Your task to perform on an android device: Open Yahoo.com Image 0: 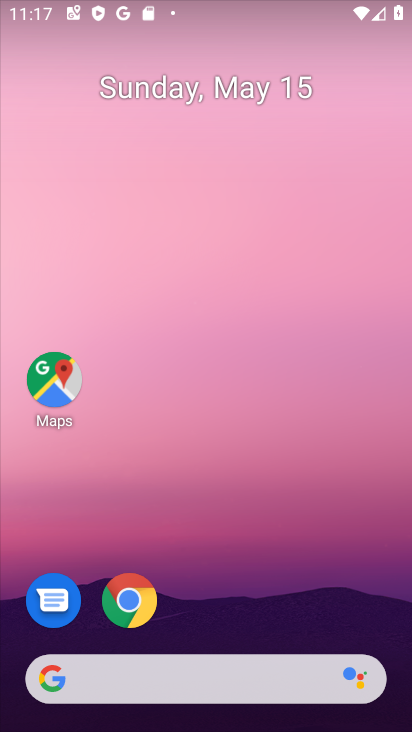
Step 0: click (126, 625)
Your task to perform on an android device: Open Yahoo.com Image 1: 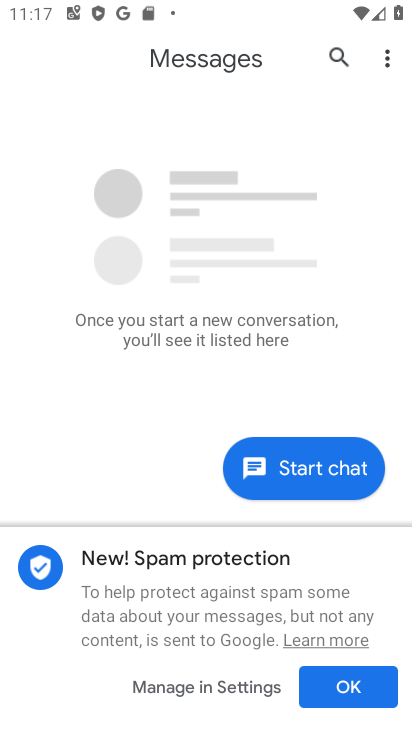
Step 1: press home button
Your task to perform on an android device: Open Yahoo.com Image 2: 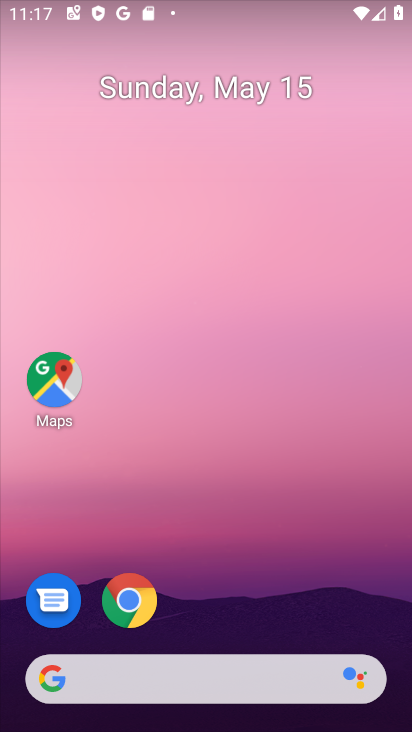
Step 2: click (121, 618)
Your task to perform on an android device: Open Yahoo.com Image 3: 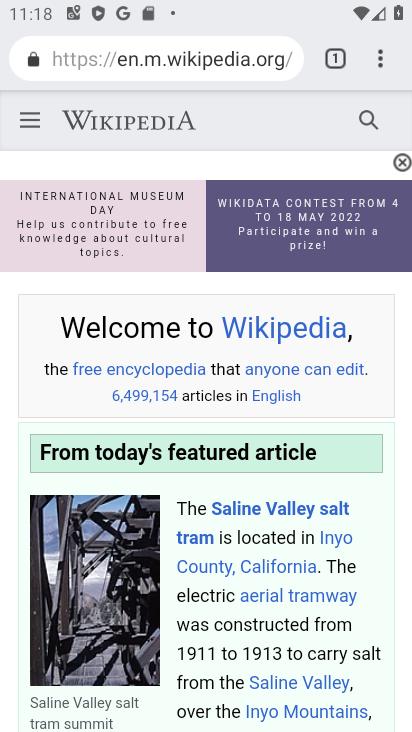
Step 3: click (185, 60)
Your task to perform on an android device: Open Yahoo.com Image 4: 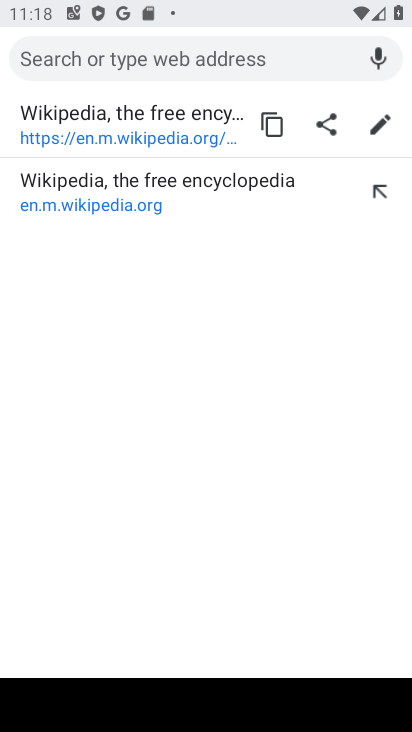
Step 4: type "yahoo.com"
Your task to perform on an android device: Open Yahoo.com Image 5: 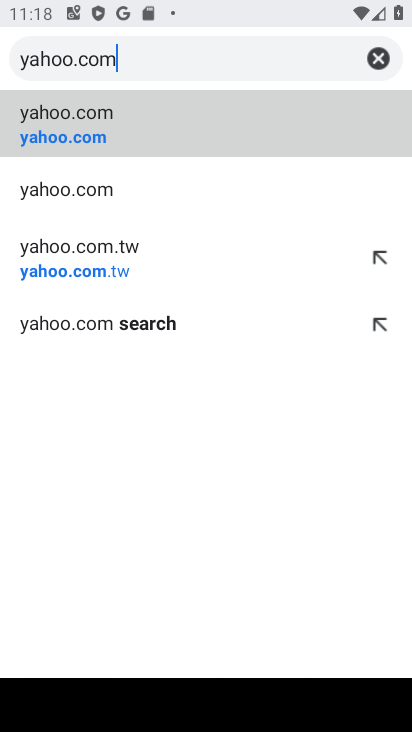
Step 5: click (98, 116)
Your task to perform on an android device: Open Yahoo.com Image 6: 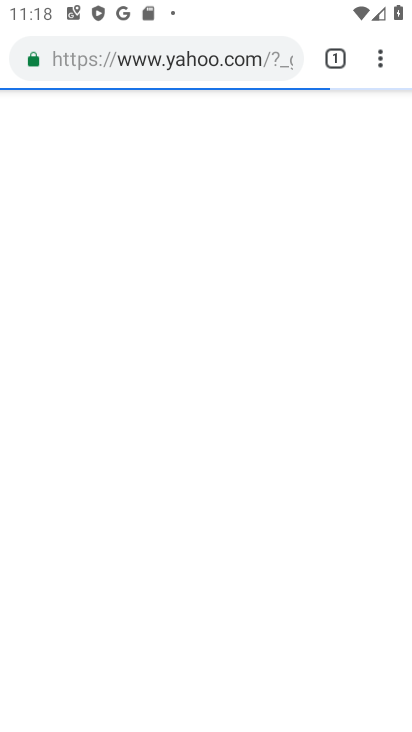
Step 6: task complete